Your task to perform on an android device: Go to Google maps Image 0: 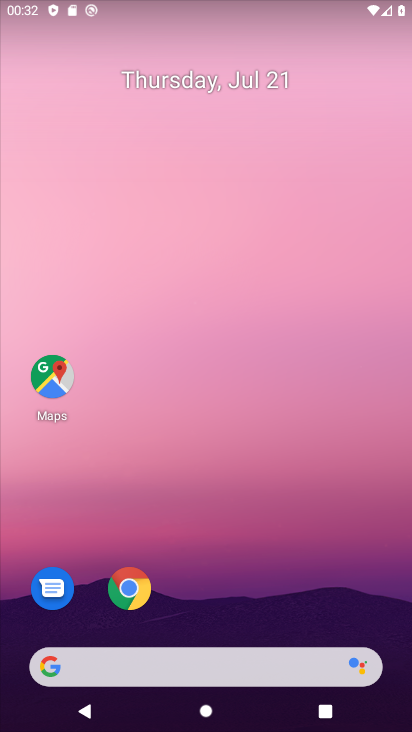
Step 0: click (54, 376)
Your task to perform on an android device: Go to Google maps Image 1: 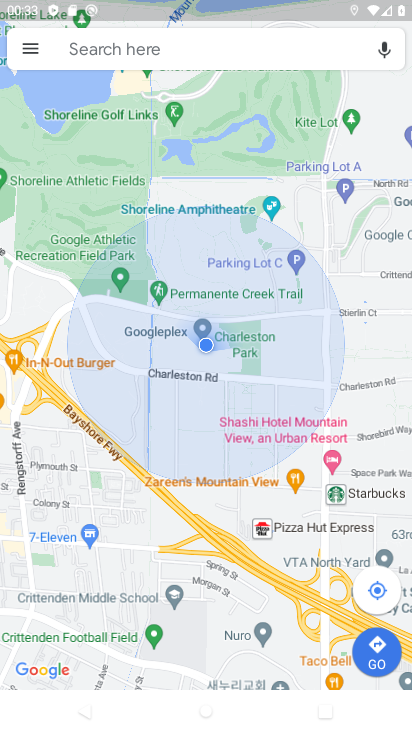
Step 1: task complete